Your task to perform on an android device: toggle notification dots Image 0: 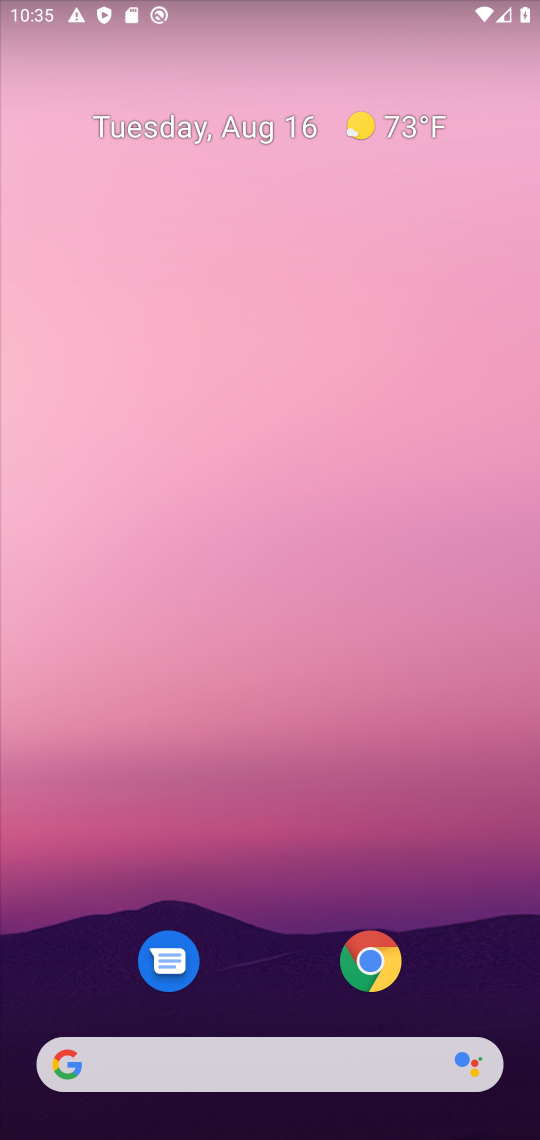
Step 0: drag from (290, 870) to (464, 3)
Your task to perform on an android device: toggle notification dots Image 1: 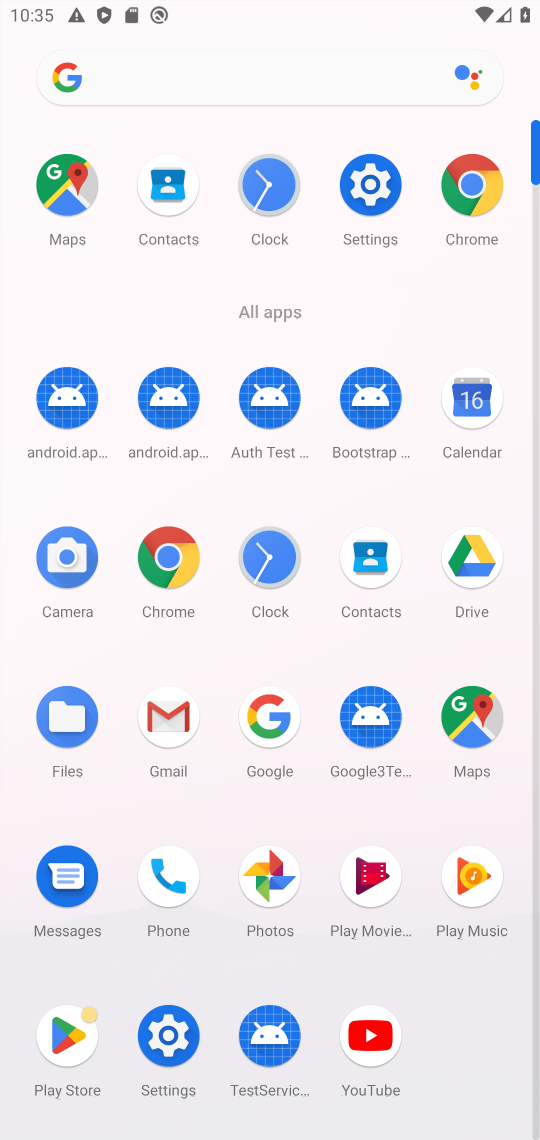
Step 1: click (470, 198)
Your task to perform on an android device: toggle notification dots Image 2: 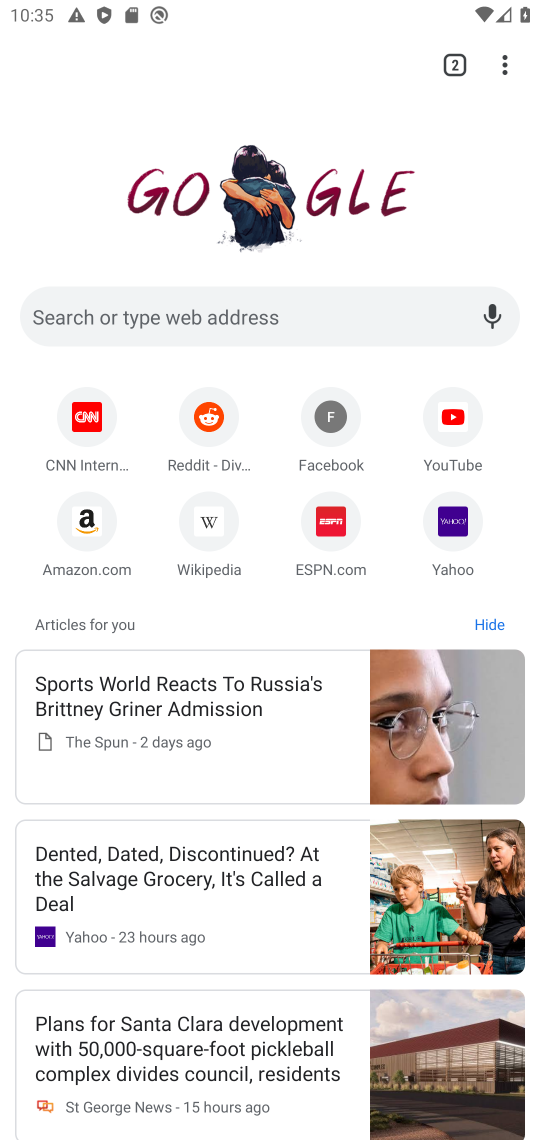
Step 2: task complete